Your task to perform on an android device: change notifications settings Image 0: 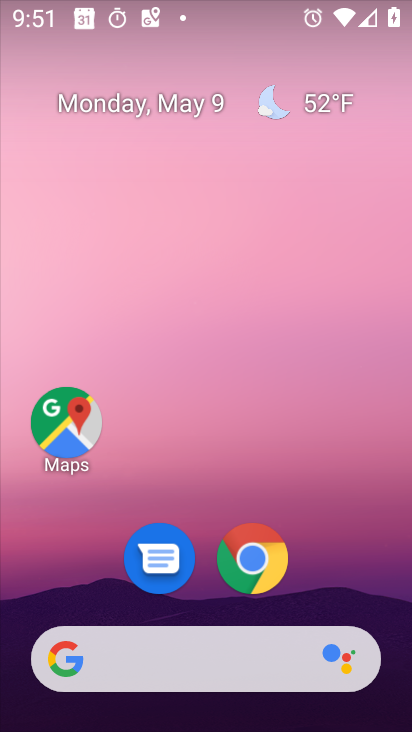
Step 0: drag from (209, 572) to (301, 96)
Your task to perform on an android device: change notifications settings Image 1: 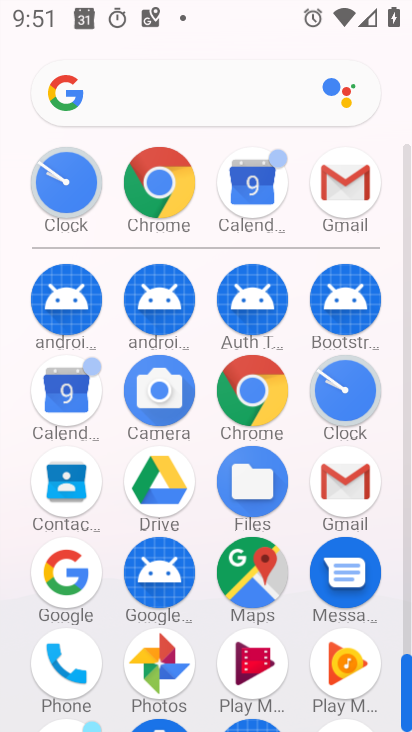
Step 1: drag from (175, 653) to (291, 157)
Your task to perform on an android device: change notifications settings Image 2: 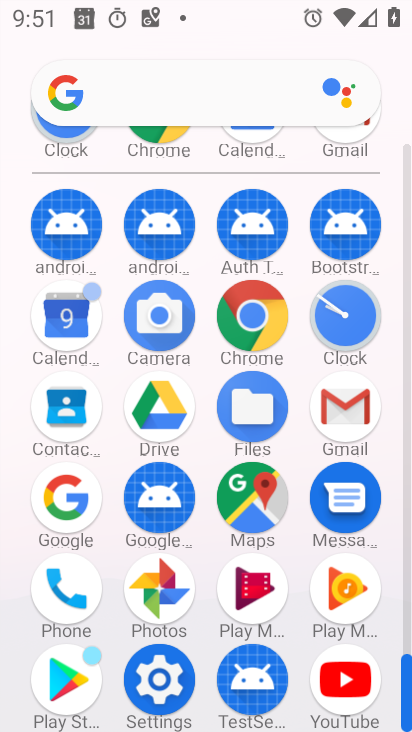
Step 2: click (176, 679)
Your task to perform on an android device: change notifications settings Image 3: 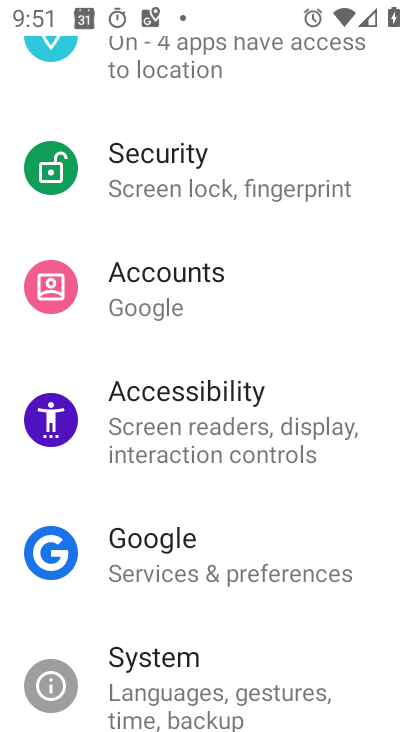
Step 3: drag from (225, 153) to (176, 698)
Your task to perform on an android device: change notifications settings Image 4: 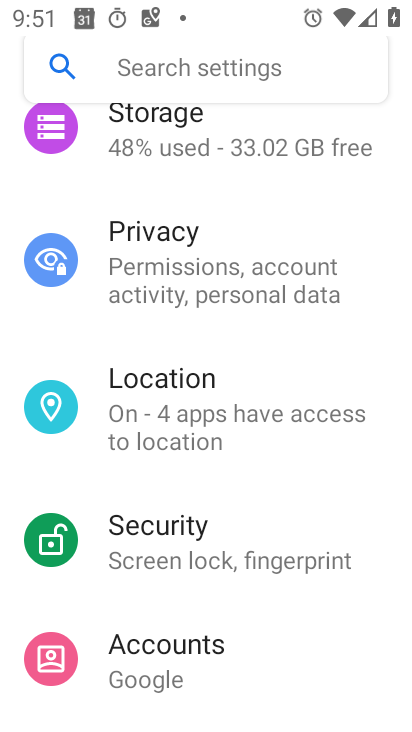
Step 4: drag from (182, 234) to (178, 624)
Your task to perform on an android device: change notifications settings Image 5: 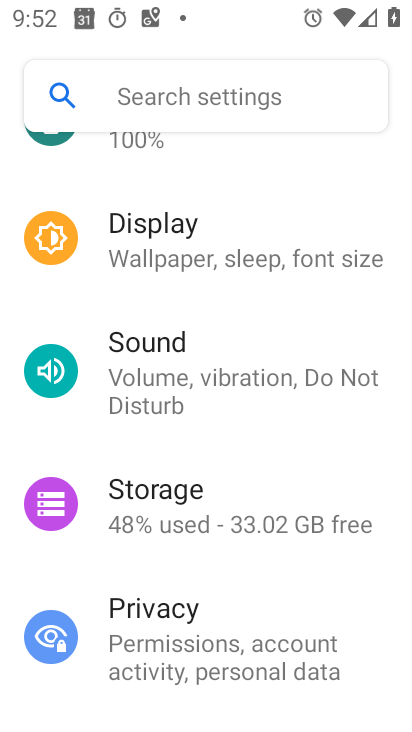
Step 5: drag from (279, 206) to (242, 642)
Your task to perform on an android device: change notifications settings Image 6: 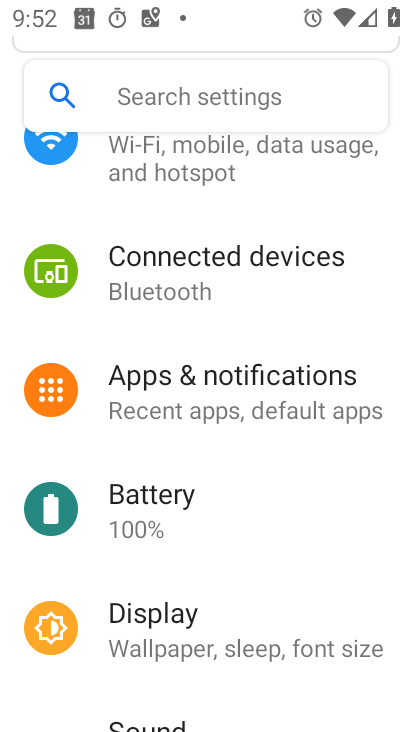
Step 6: click (252, 391)
Your task to perform on an android device: change notifications settings Image 7: 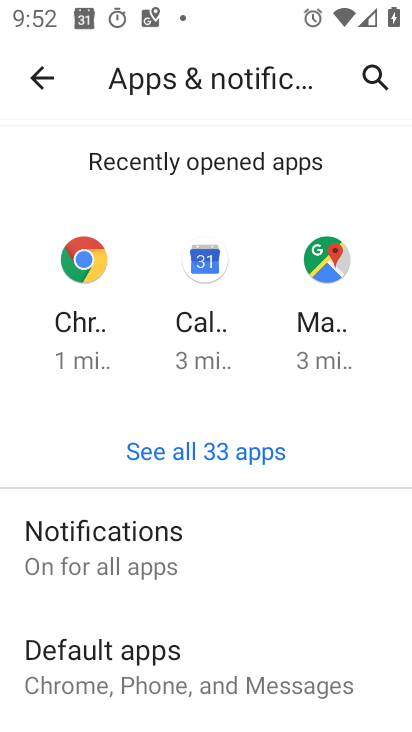
Step 7: click (74, 517)
Your task to perform on an android device: change notifications settings Image 8: 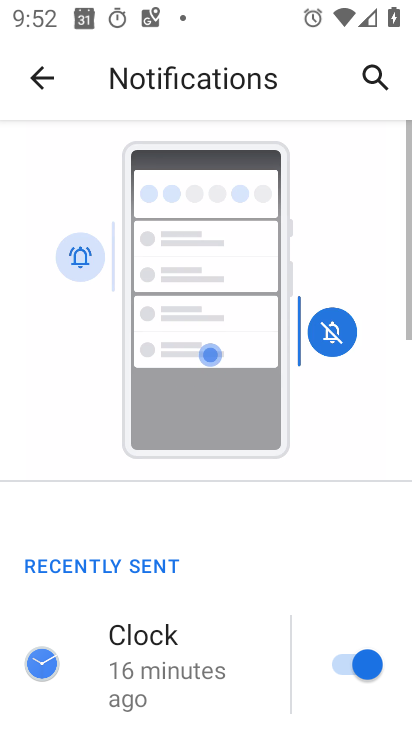
Step 8: drag from (201, 665) to (236, 152)
Your task to perform on an android device: change notifications settings Image 9: 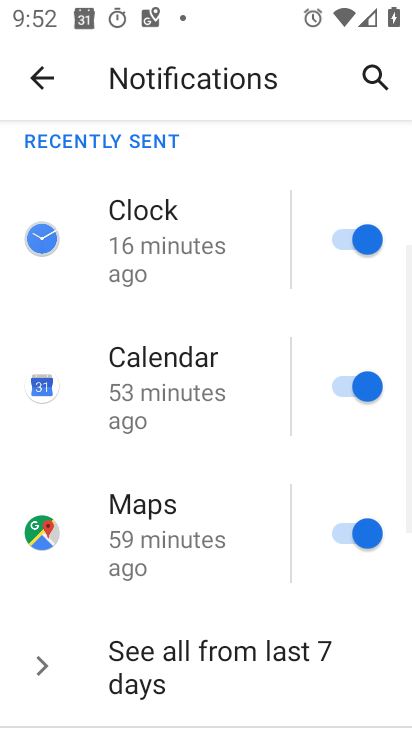
Step 9: drag from (217, 609) to (284, 85)
Your task to perform on an android device: change notifications settings Image 10: 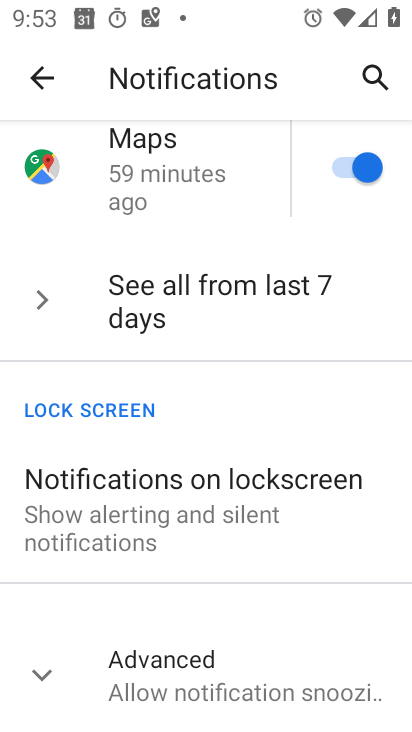
Step 10: click (222, 673)
Your task to perform on an android device: change notifications settings Image 11: 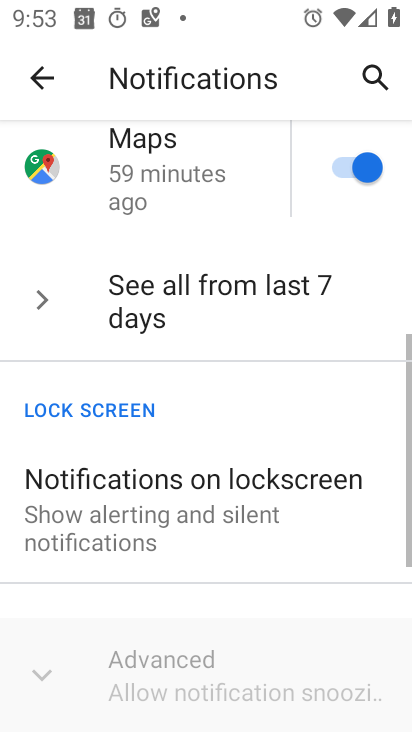
Step 11: drag from (229, 671) to (298, 164)
Your task to perform on an android device: change notifications settings Image 12: 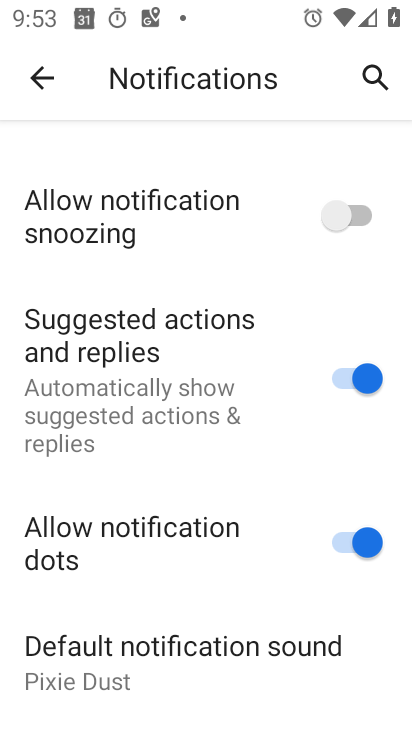
Step 12: click (346, 217)
Your task to perform on an android device: change notifications settings Image 13: 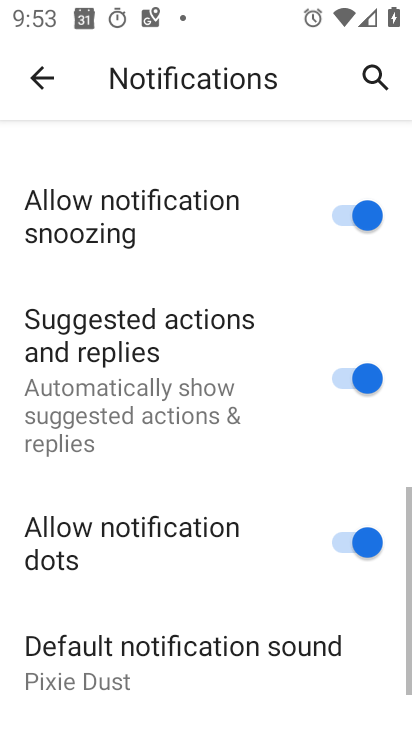
Step 13: task complete